Your task to perform on an android device: Go to internet settings Image 0: 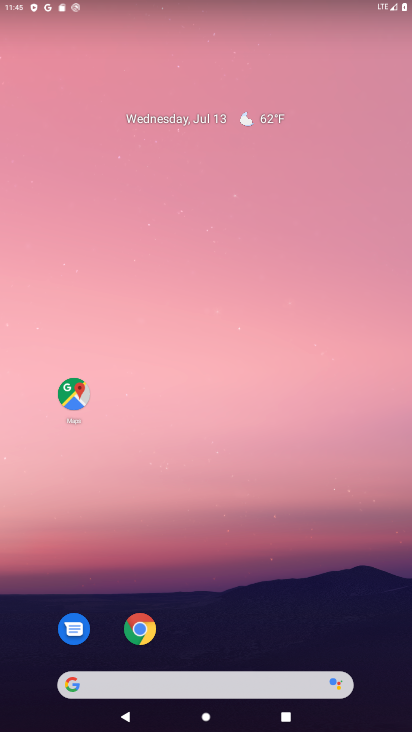
Step 0: drag from (231, 8) to (256, 667)
Your task to perform on an android device: Go to internet settings Image 1: 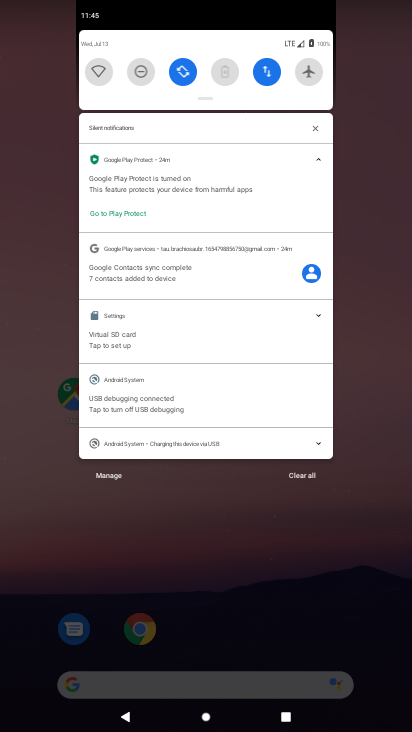
Step 1: click (266, 77)
Your task to perform on an android device: Go to internet settings Image 2: 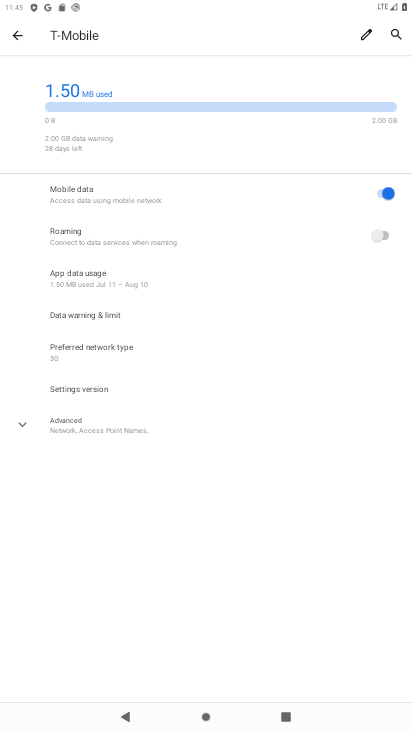
Step 2: task complete